Your task to perform on an android device: Search for jbl charge 4 on walmart, select the first entry, and add it to the cart. Image 0: 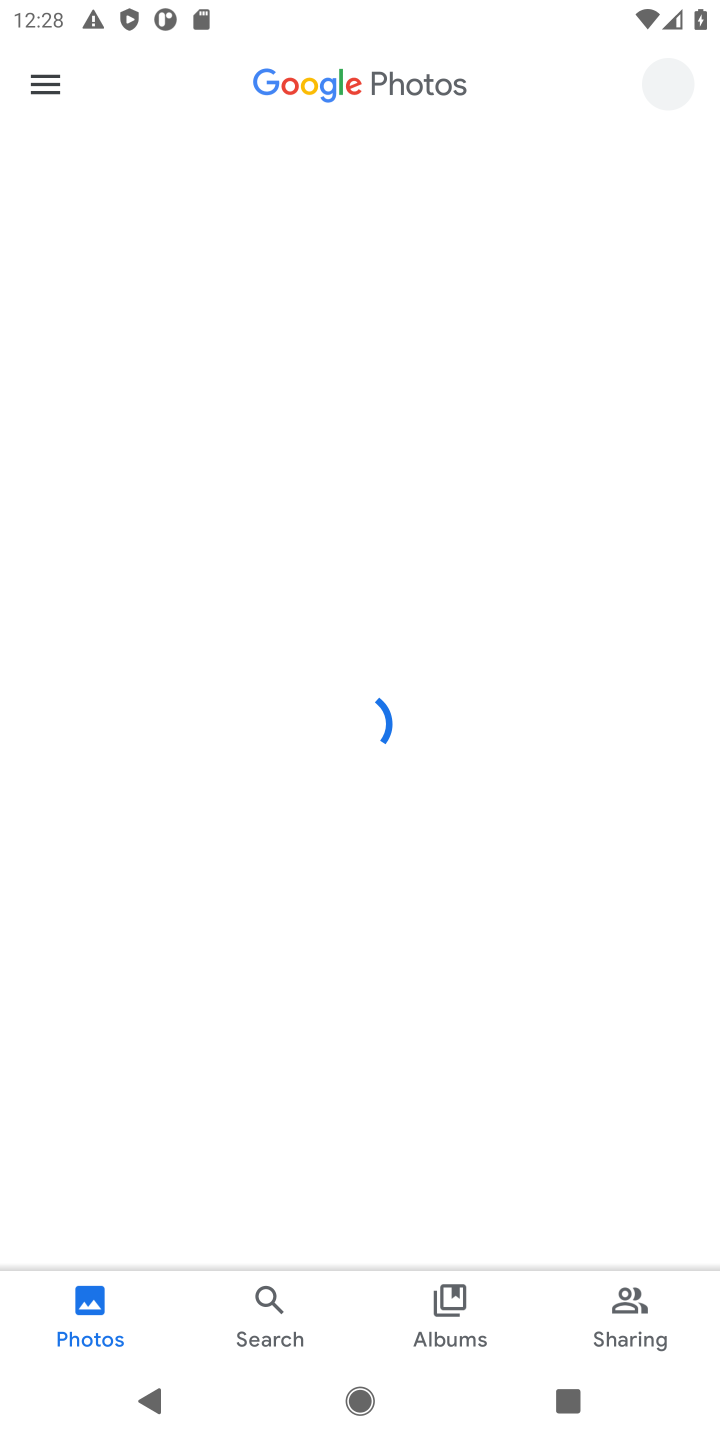
Step 0: press home button
Your task to perform on an android device: Search for jbl charge 4 on walmart, select the first entry, and add it to the cart. Image 1: 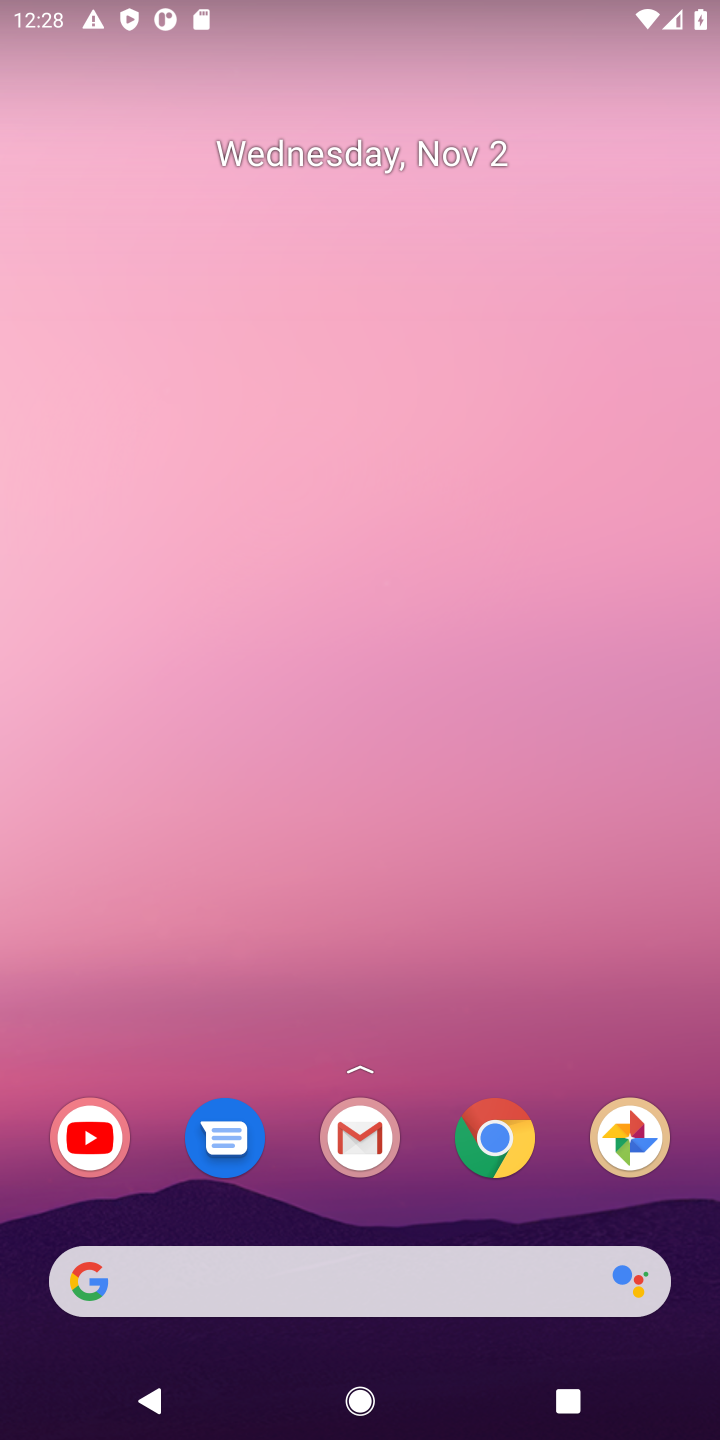
Step 1: click (135, 1277)
Your task to perform on an android device: Search for jbl charge 4 on walmart, select the first entry, and add it to the cart. Image 2: 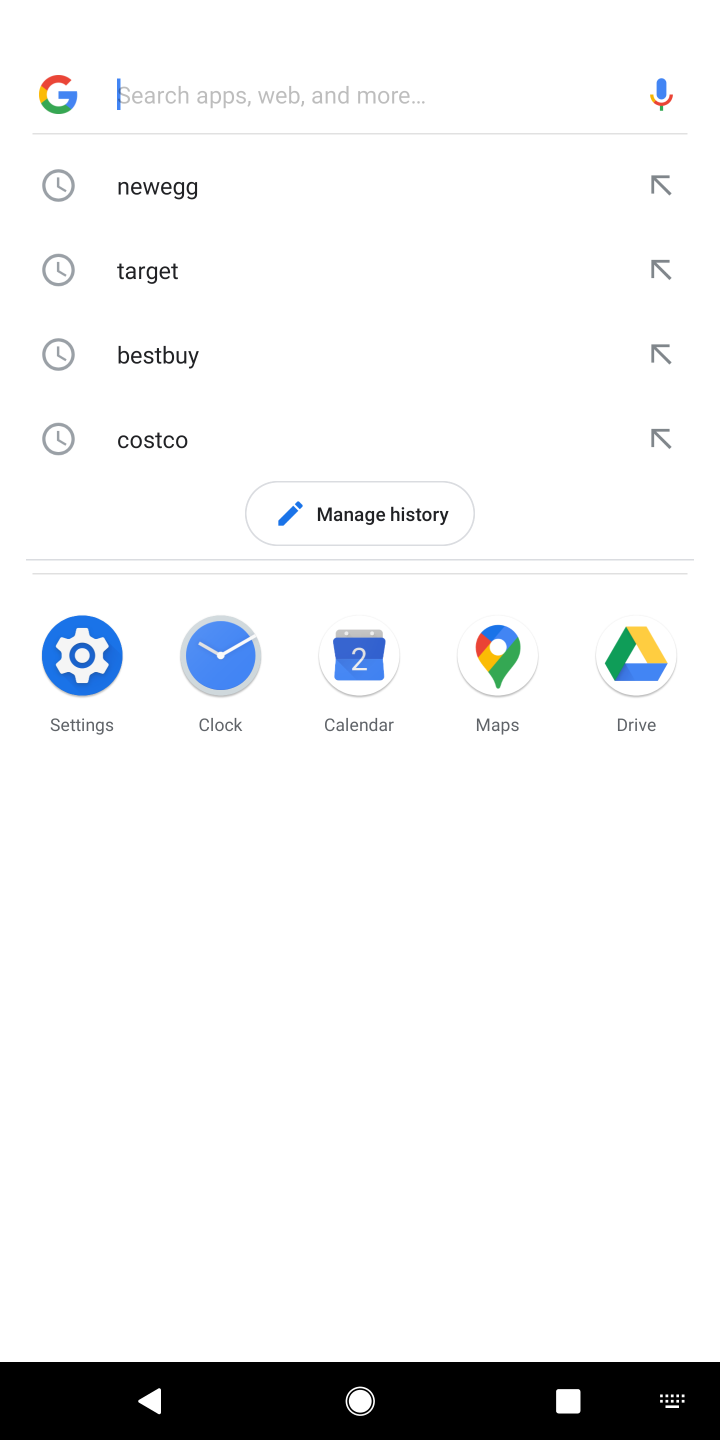
Step 2: type "walmart"
Your task to perform on an android device: Search for jbl charge 4 on walmart, select the first entry, and add it to the cart. Image 3: 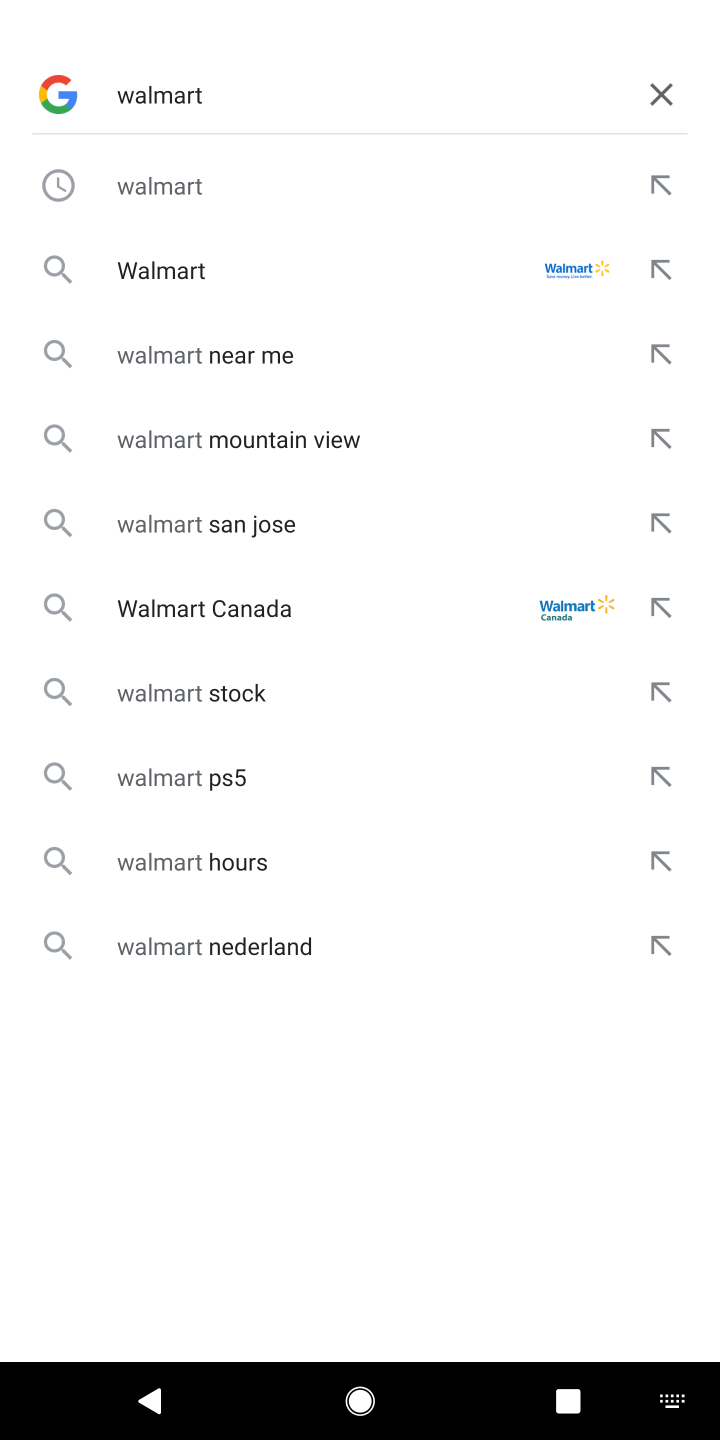
Step 3: press enter
Your task to perform on an android device: Search for jbl charge 4 on walmart, select the first entry, and add it to the cart. Image 4: 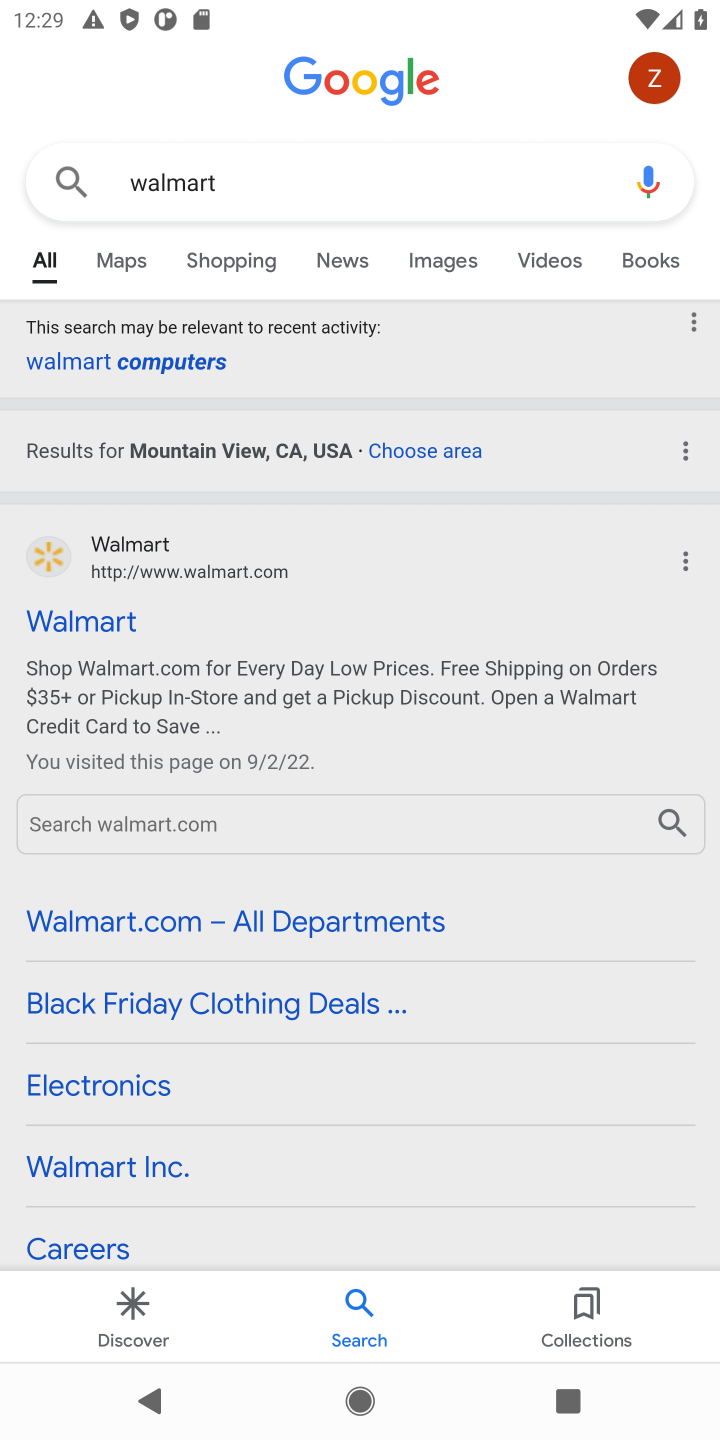
Step 4: click (89, 621)
Your task to perform on an android device: Search for jbl charge 4 on walmart, select the first entry, and add it to the cart. Image 5: 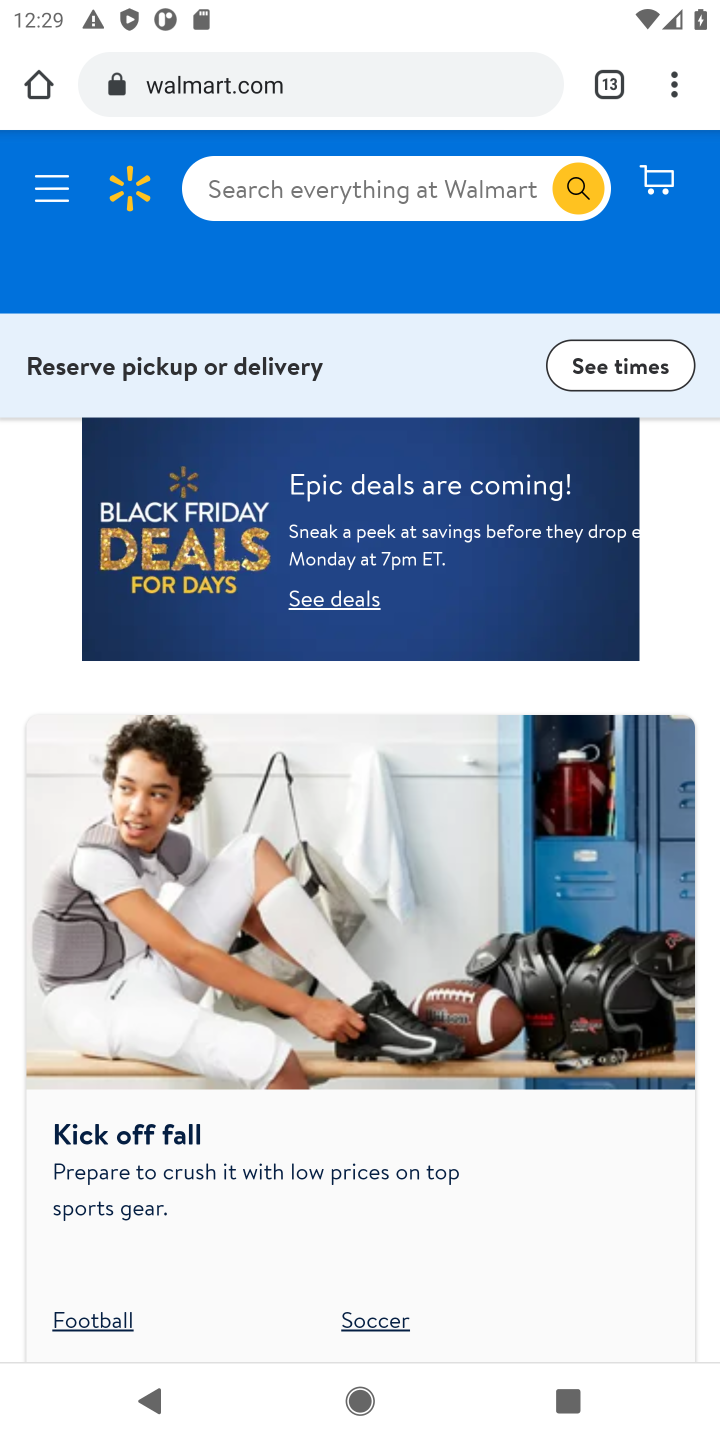
Step 5: click (298, 181)
Your task to perform on an android device: Search for jbl charge 4 on walmart, select the first entry, and add it to the cart. Image 6: 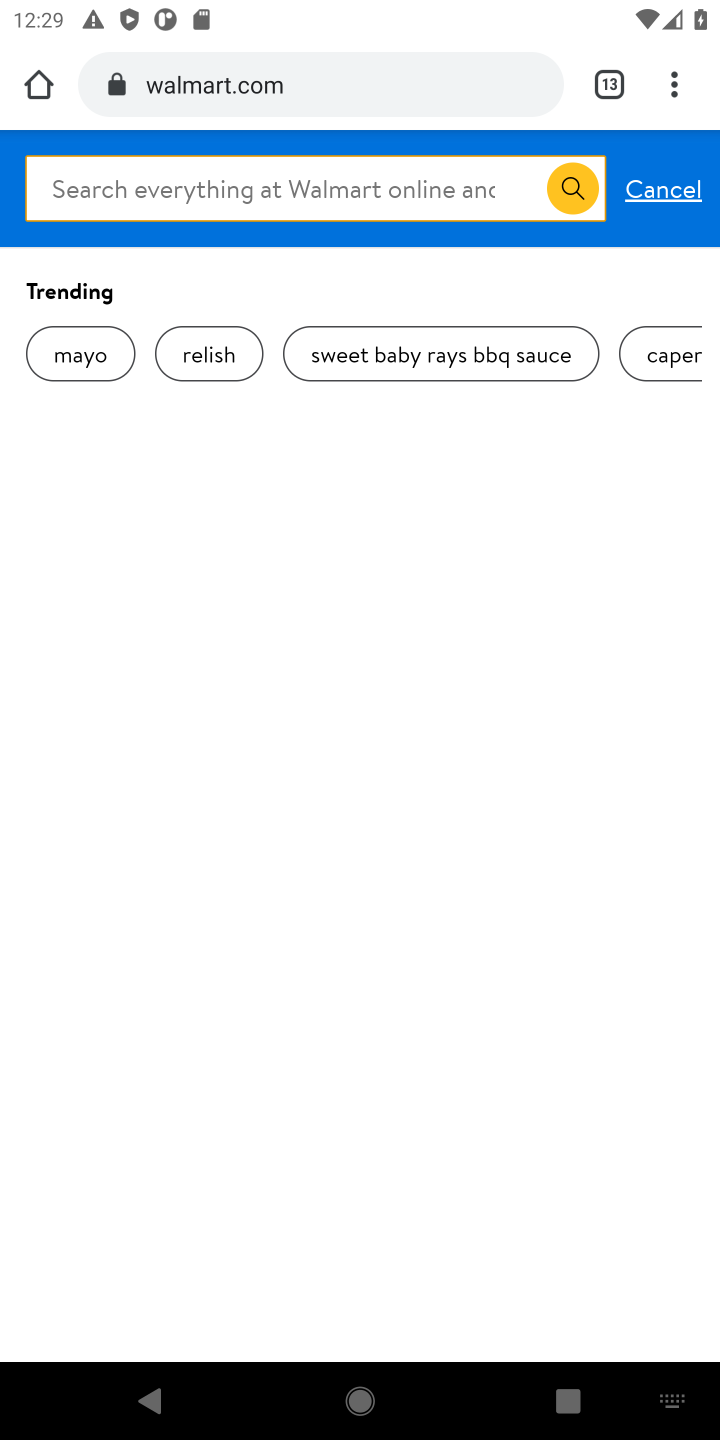
Step 6: type " jbl charge 4"
Your task to perform on an android device: Search for jbl charge 4 on walmart, select the first entry, and add it to the cart. Image 7: 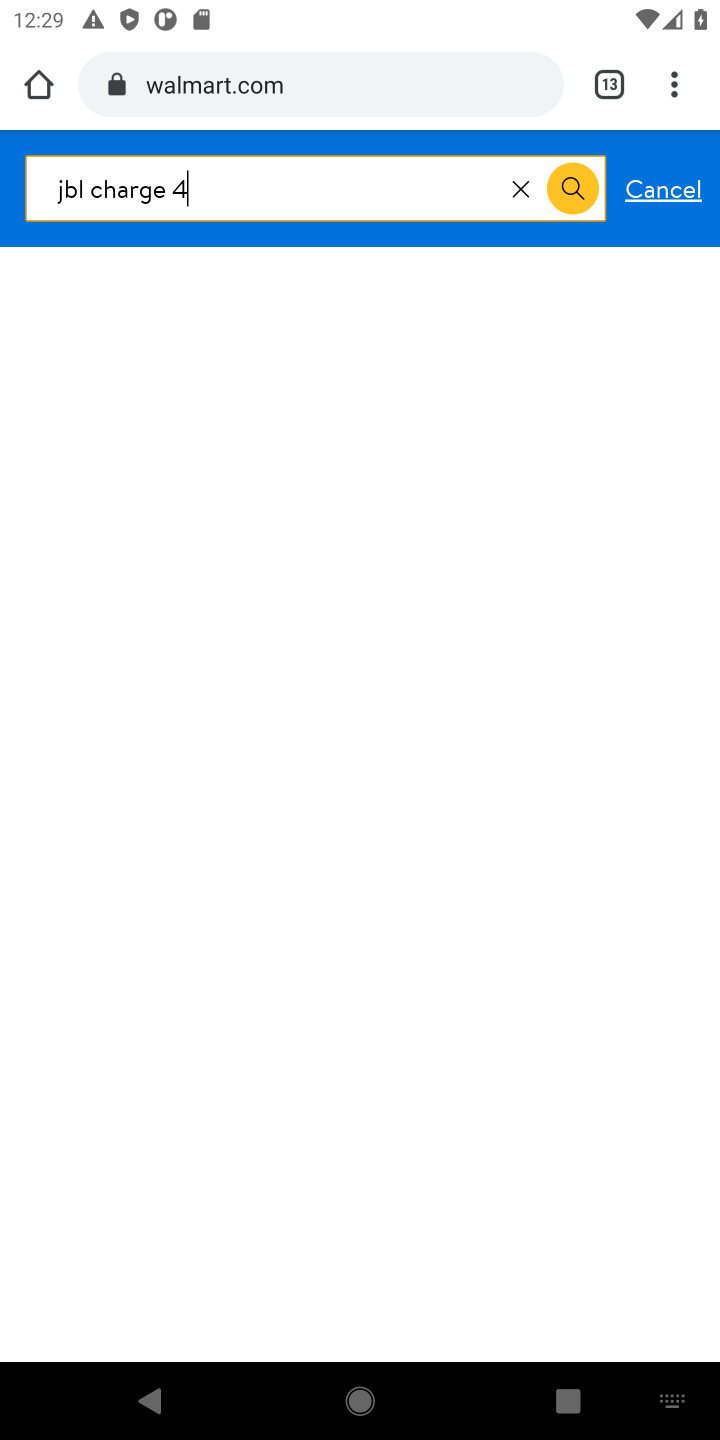
Step 7: press enter
Your task to perform on an android device: Search for jbl charge 4 on walmart, select the first entry, and add it to the cart. Image 8: 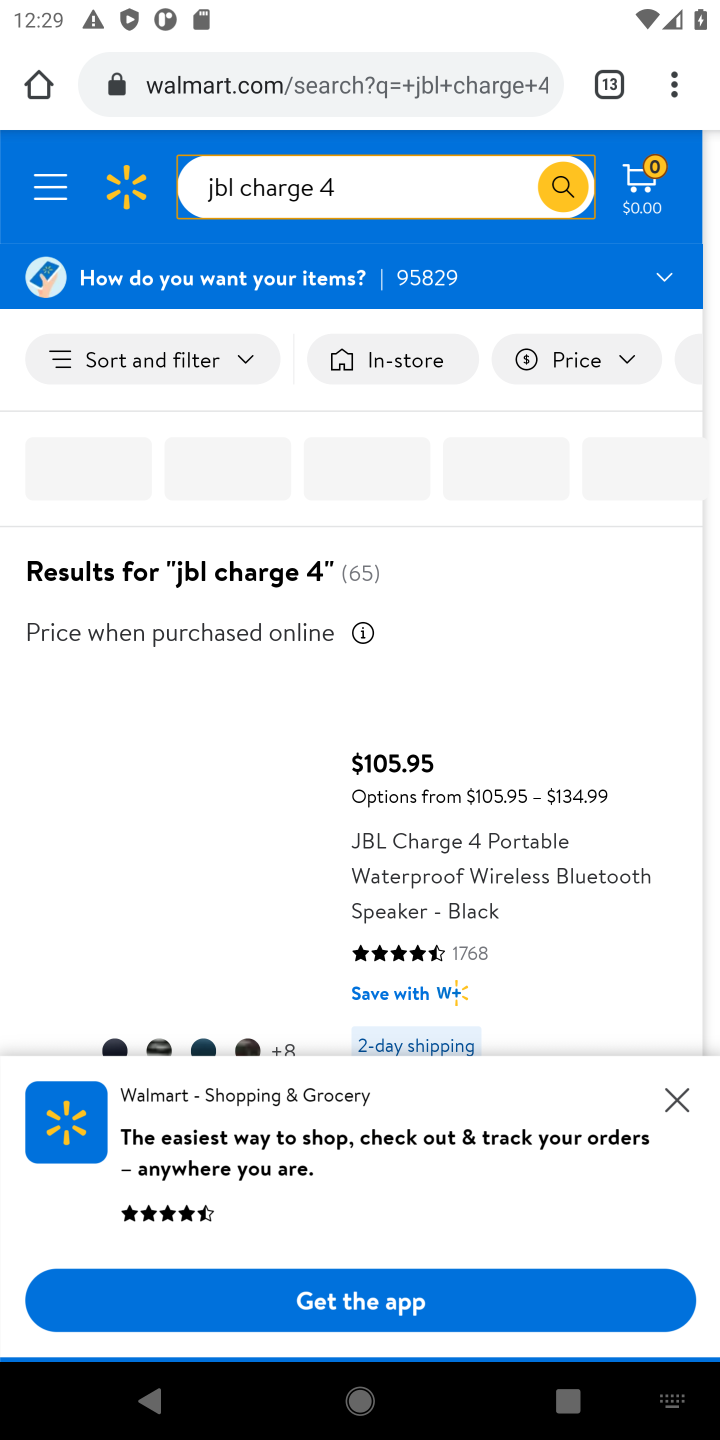
Step 8: click (682, 1089)
Your task to perform on an android device: Search for jbl charge 4 on walmart, select the first entry, and add it to the cart. Image 9: 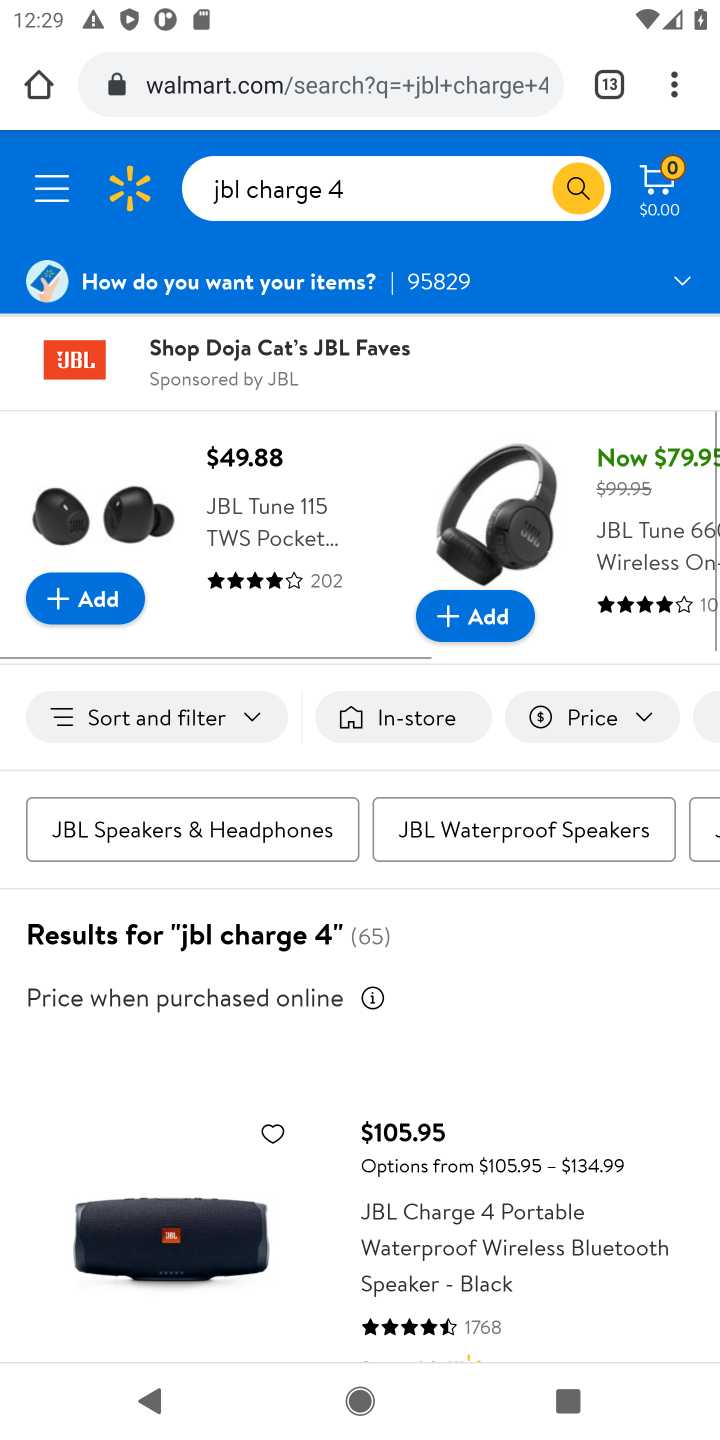
Step 9: drag from (502, 1158) to (496, 890)
Your task to perform on an android device: Search for jbl charge 4 on walmart, select the first entry, and add it to the cart. Image 10: 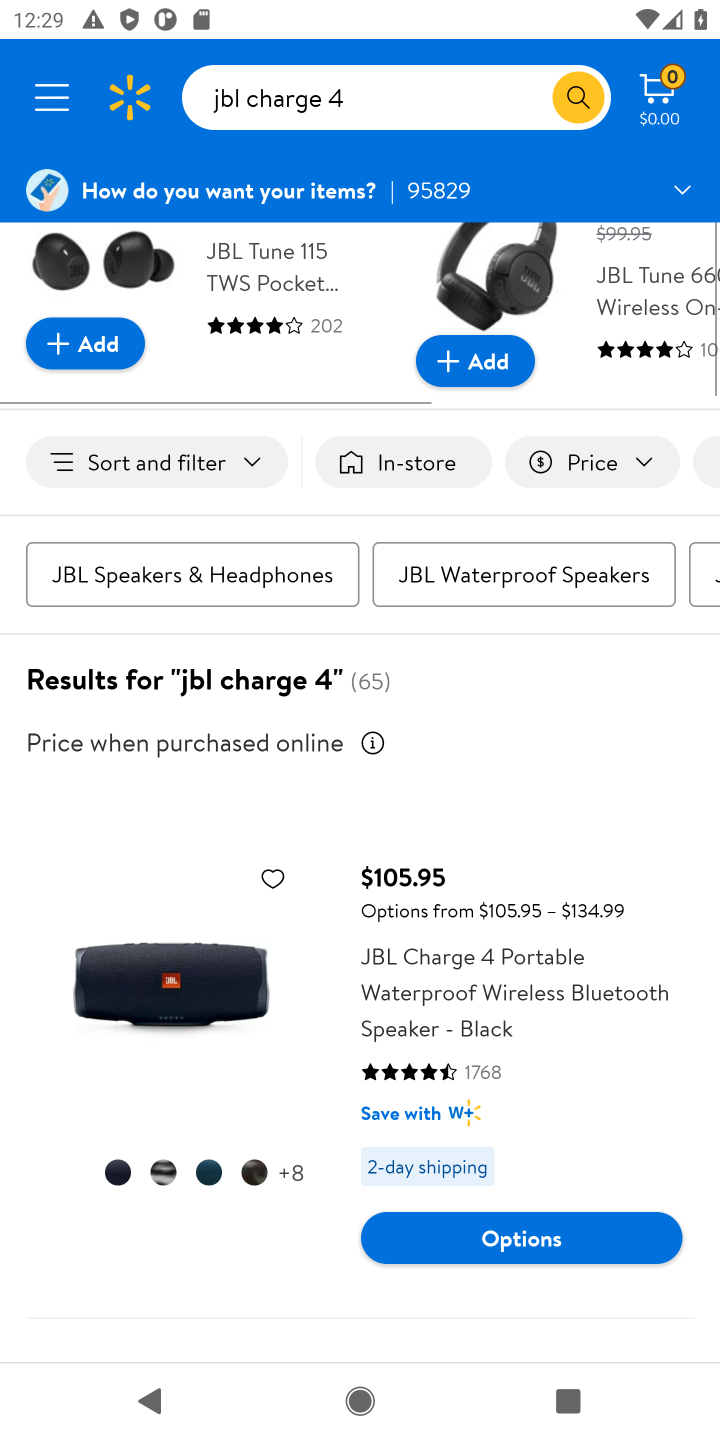
Step 10: drag from (540, 1017) to (546, 797)
Your task to perform on an android device: Search for jbl charge 4 on walmart, select the first entry, and add it to the cart. Image 11: 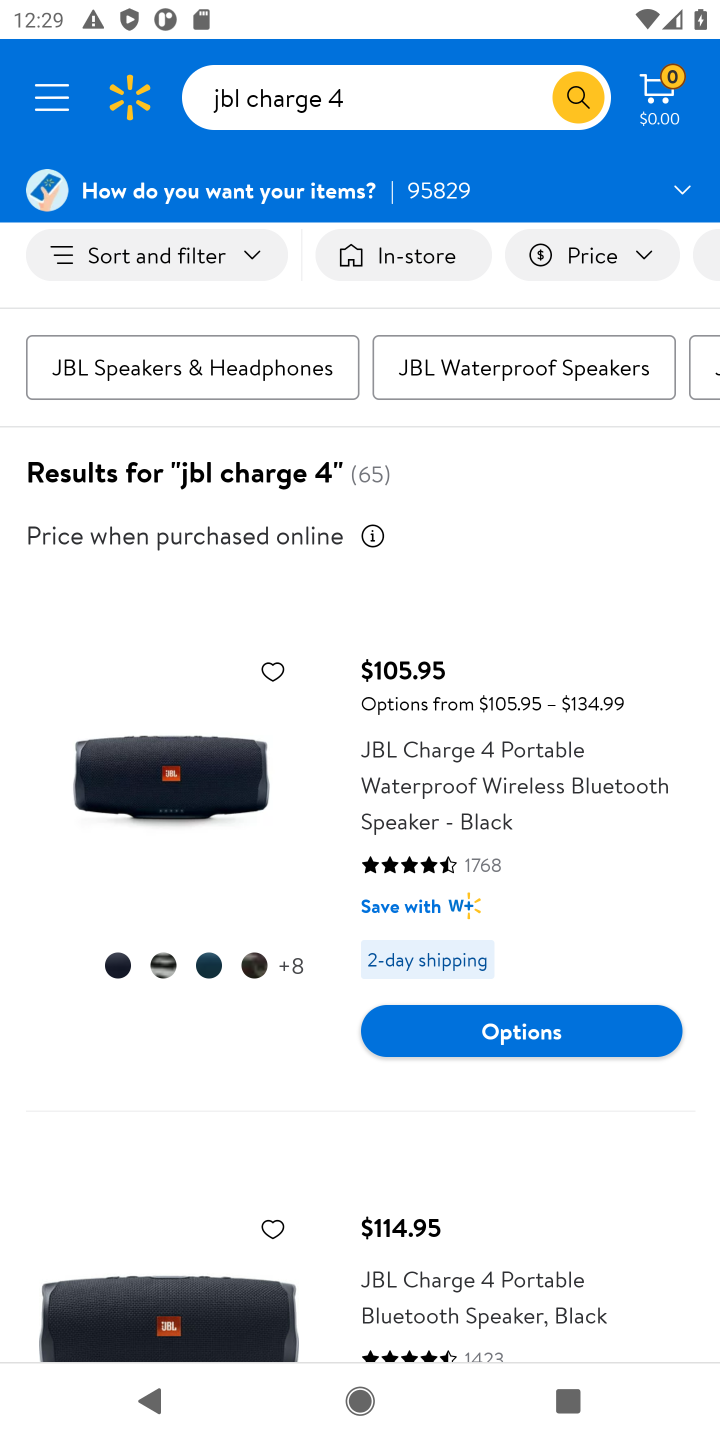
Step 11: click (467, 709)
Your task to perform on an android device: Search for jbl charge 4 on walmart, select the first entry, and add it to the cart. Image 12: 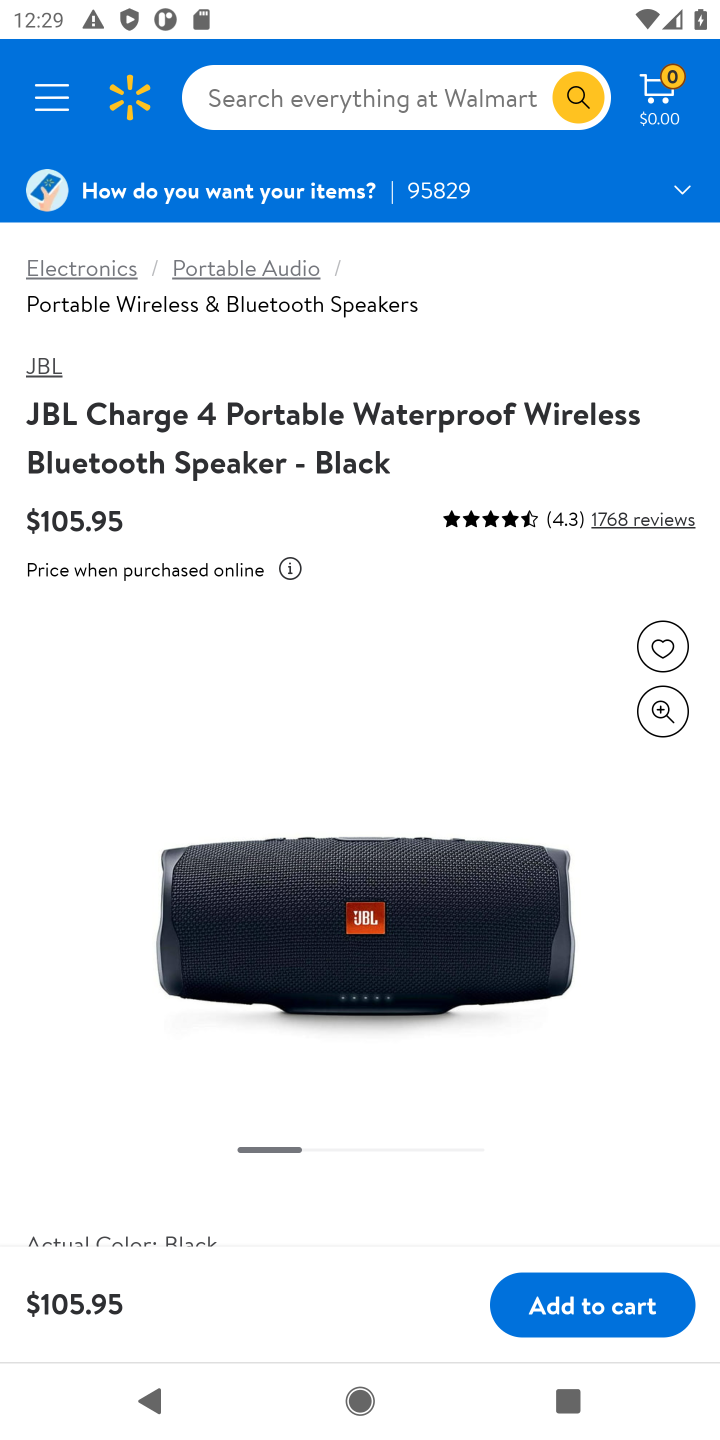
Step 12: click (563, 1308)
Your task to perform on an android device: Search for jbl charge 4 on walmart, select the first entry, and add it to the cart. Image 13: 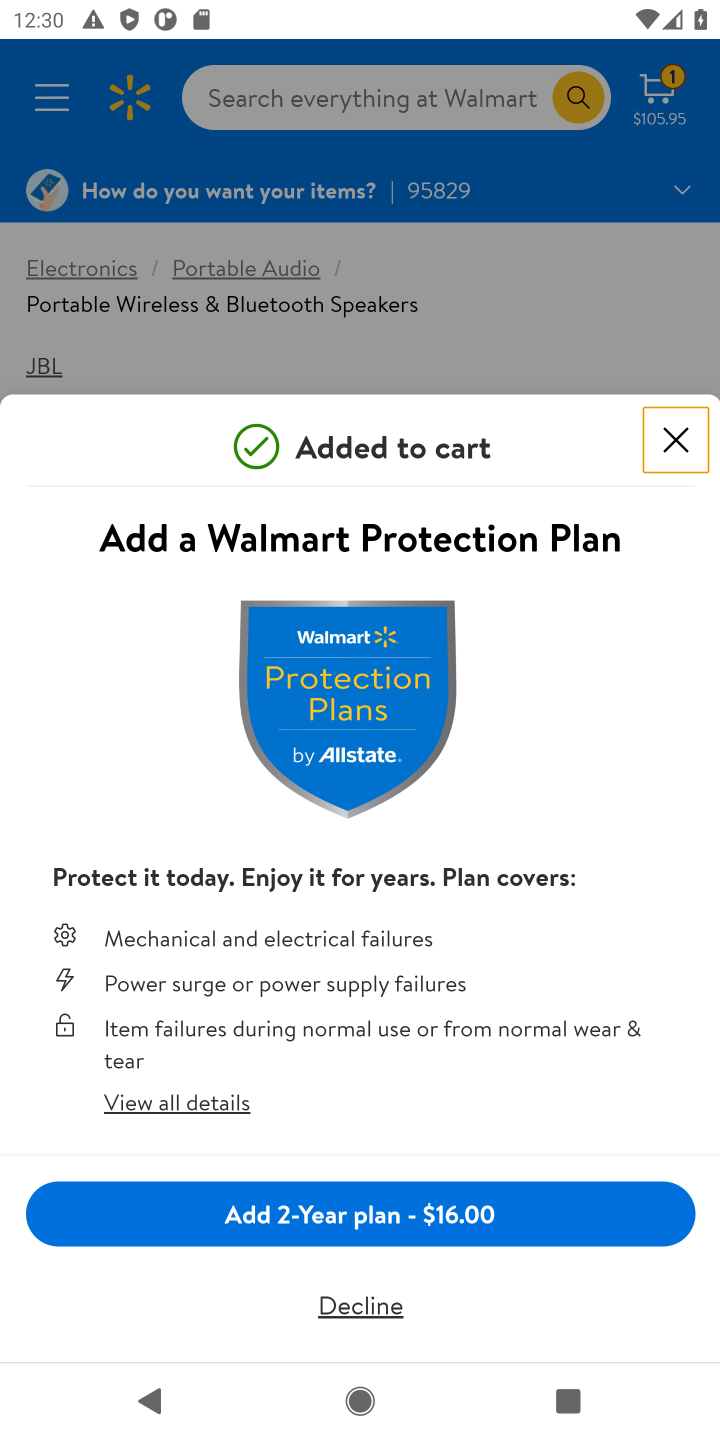
Step 13: click (337, 1308)
Your task to perform on an android device: Search for jbl charge 4 on walmart, select the first entry, and add it to the cart. Image 14: 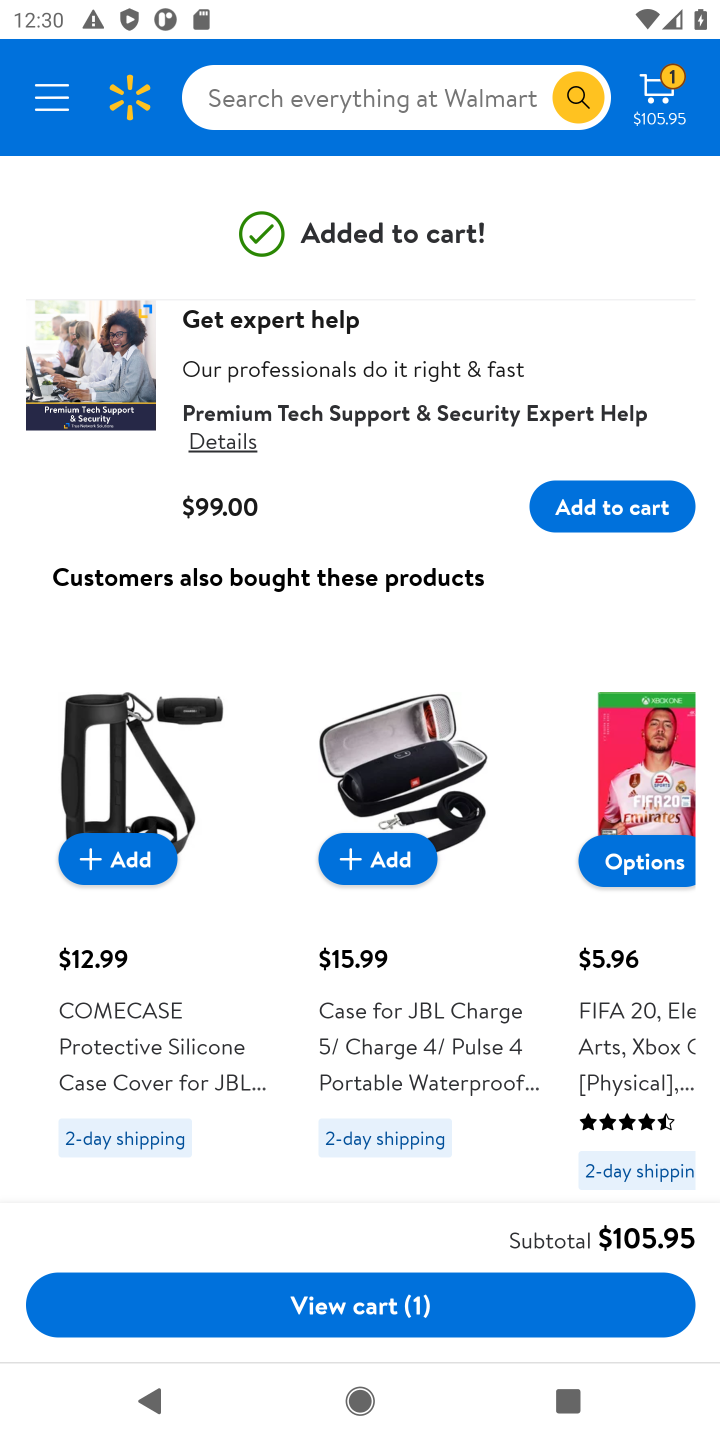
Step 14: task complete